Your task to perform on an android device: Search for Mexican restaurants on Maps Image 0: 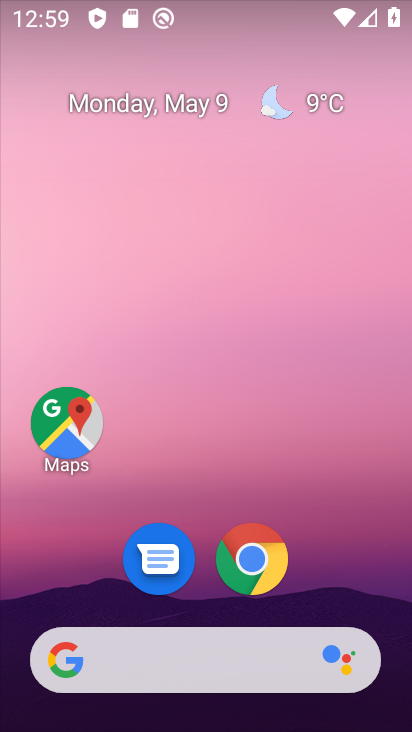
Step 0: drag from (310, 578) to (310, 333)
Your task to perform on an android device: Search for Mexican restaurants on Maps Image 1: 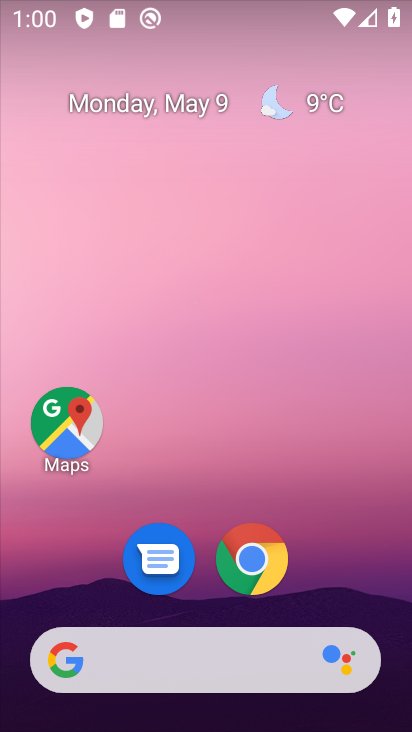
Step 1: drag from (328, 573) to (385, 145)
Your task to perform on an android device: Search for Mexican restaurants on Maps Image 2: 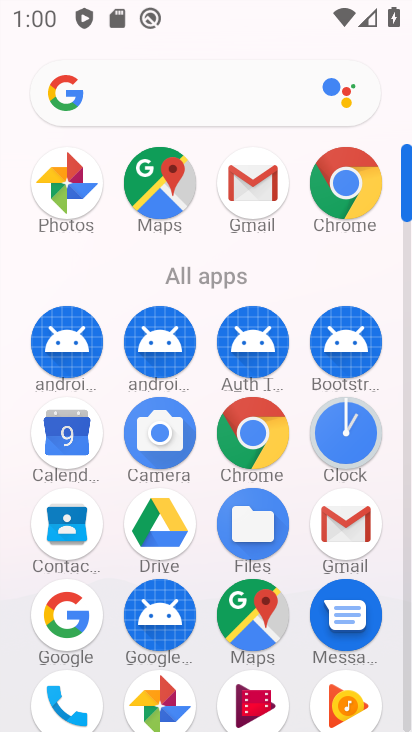
Step 2: click (269, 606)
Your task to perform on an android device: Search for Mexican restaurants on Maps Image 3: 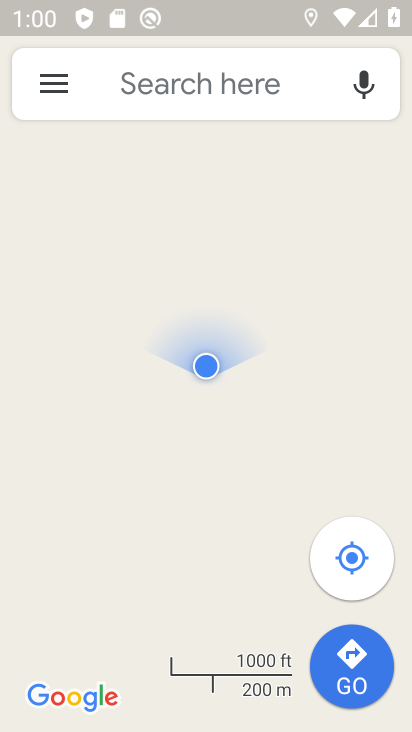
Step 3: click (175, 73)
Your task to perform on an android device: Search for Mexican restaurants on Maps Image 4: 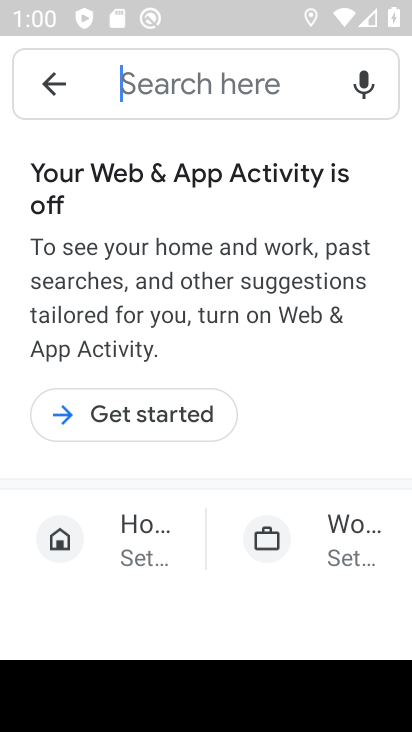
Step 4: click (129, 65)
Your task to perform on an android device: Search for Mexican restaurants on Maps Image 5: 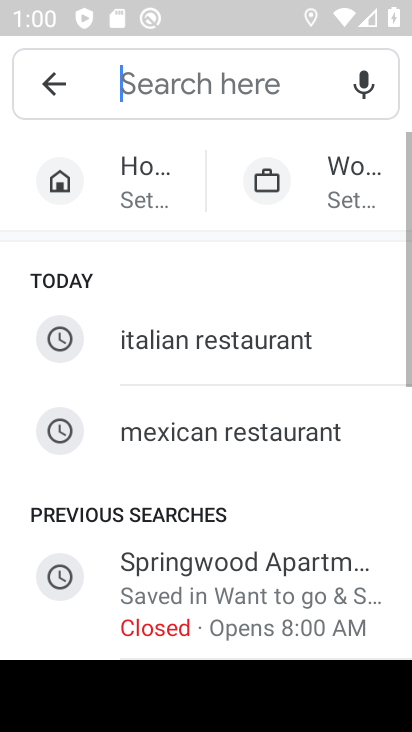
Step 5: type " Mexican restaurants"
Your task to perform on an android device: Search for Mexican restaurants on Maps Image 6: 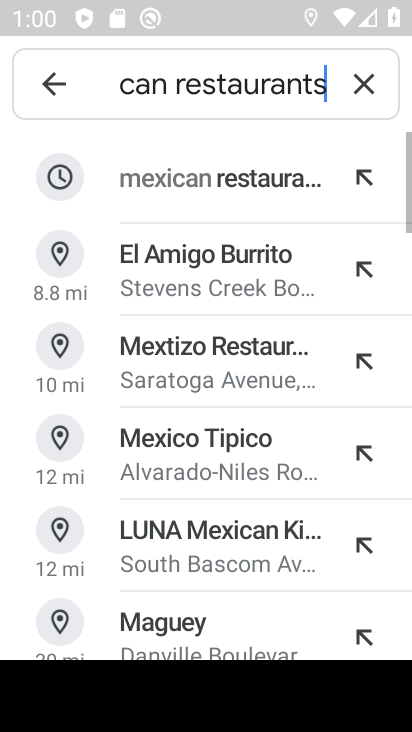
Step 6: click (210, 191)
Your task to perform on an android device: Search for Mexican restaurants on Maps Image 7: 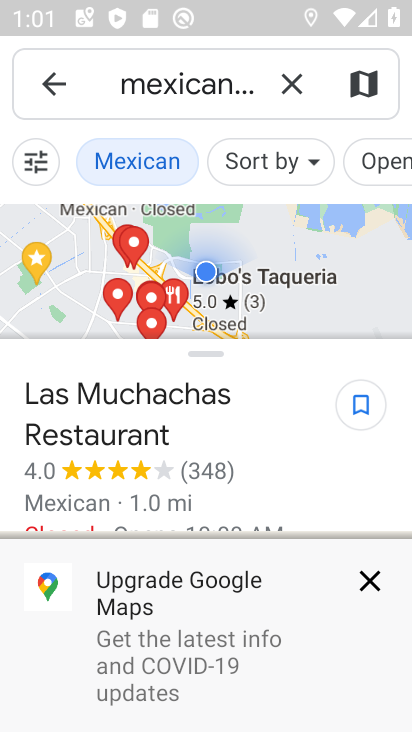
Step 7: click (379, 576)
Your task to perform on an android device: Search for Mexican restaurants on Maps Image 8: 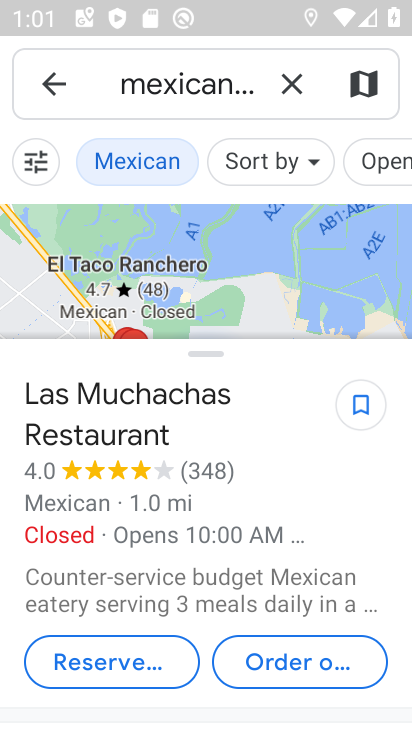
Step 8: task complete